Your task to perform on an android device: open device folders in google photos Image 0: 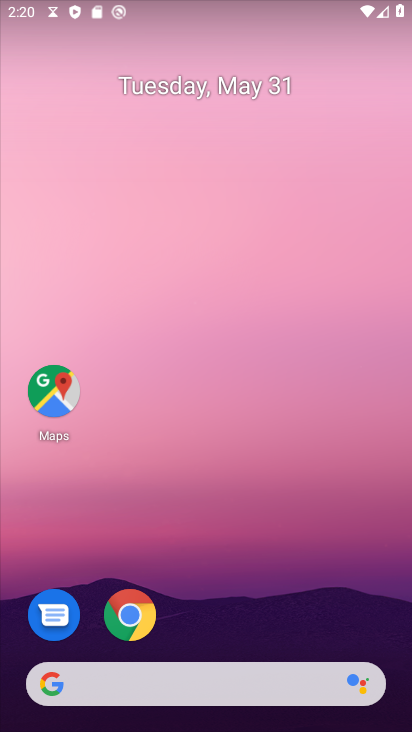
Step 0: drag from (249, 641) to (154, 118)
Your task to perform on an android device: open device folders in google photos Image 1: 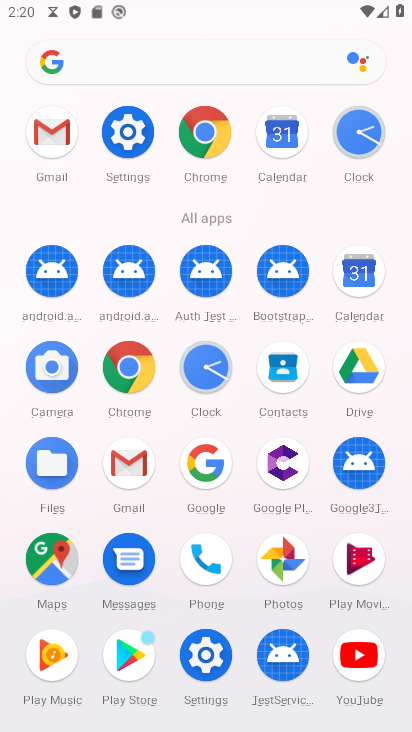
Step 1: click (288, 560)
Your task to perform on an android device: open device folders in google photos Image 2: 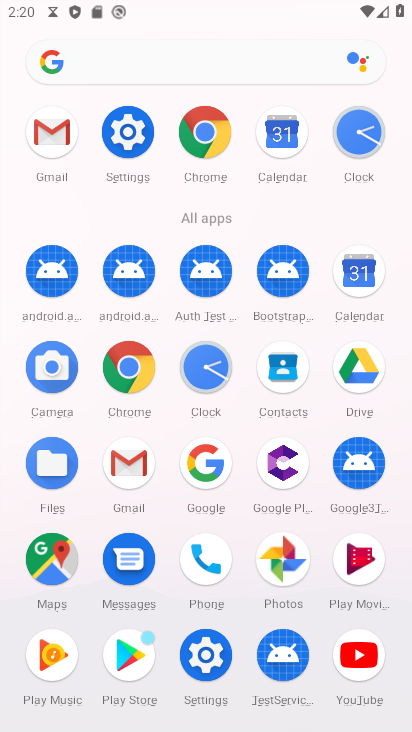
Step 2: click (288, 560)
Your task to perform on an android device: open device folders in google photos Image 3: 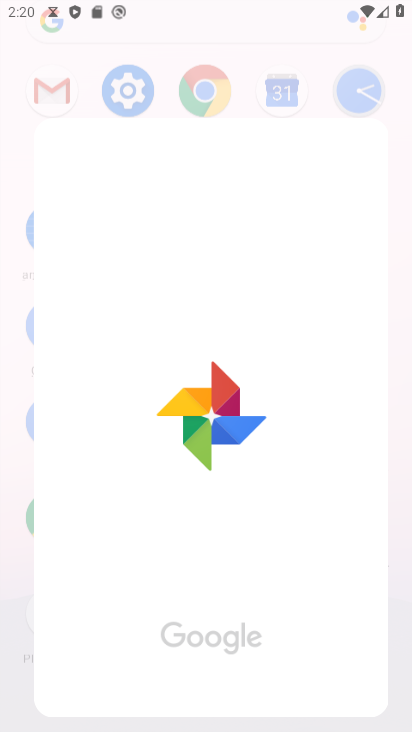
Step 3: click (288, 560)
Your task to perform on an android device: open device folders in google photos Image 4: 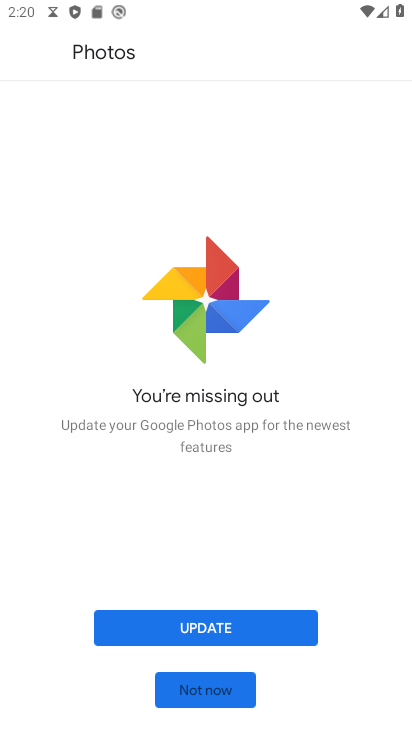
Step 4: click (214, 686)
Your task to perform on an android device: open device folders in google photos Image 5: 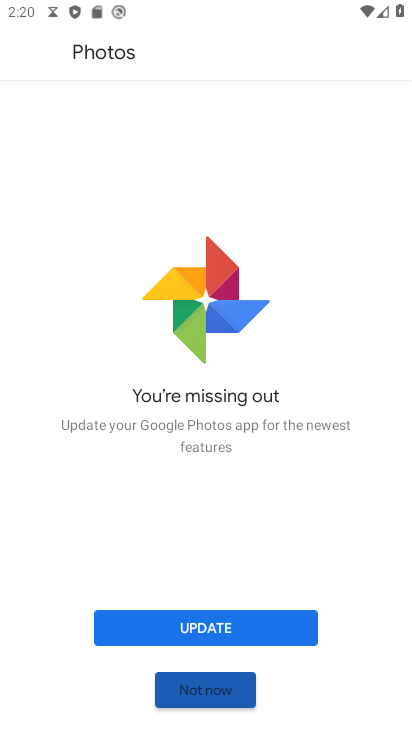
Step 5: click (215, 685)
Your task to perform on an android device: open device folders in google photos Image 6: 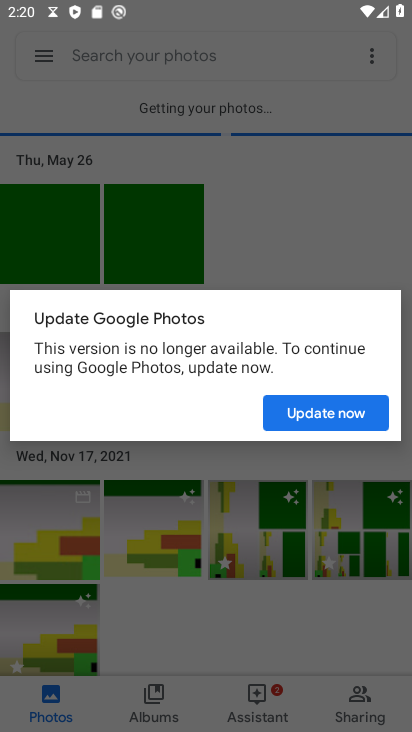
Step 6: click (273, 224)
Your task to perform on an android device: open device folders in google photos Image 7: 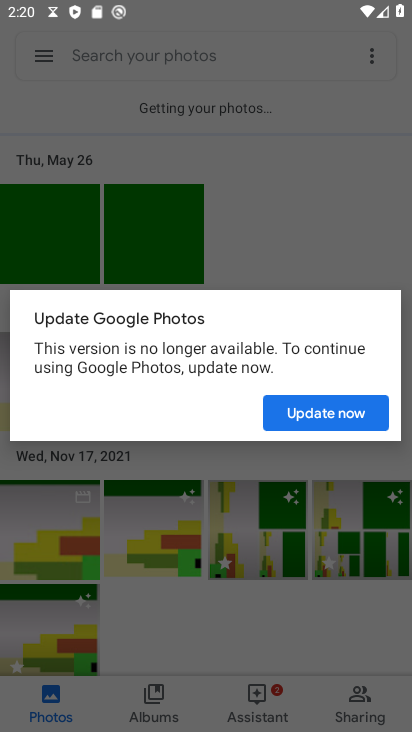
Step 7: click (274, 224)
Your task to perform on an android device: open device folders in google photos Image 8: 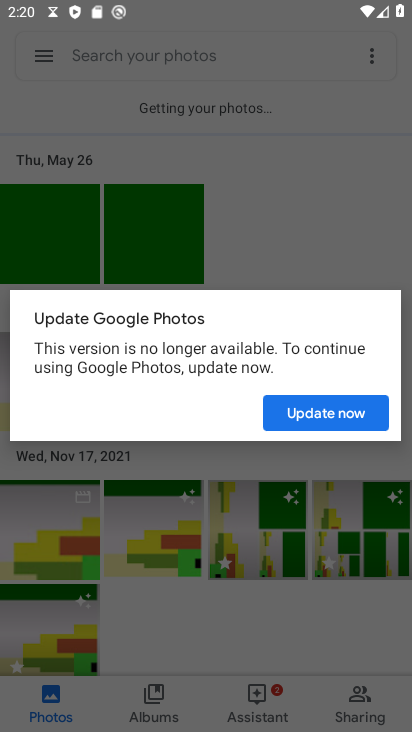
Step 8: click (274, 224)
Your task to perform on an android device: open device folders in google photos Image 9: 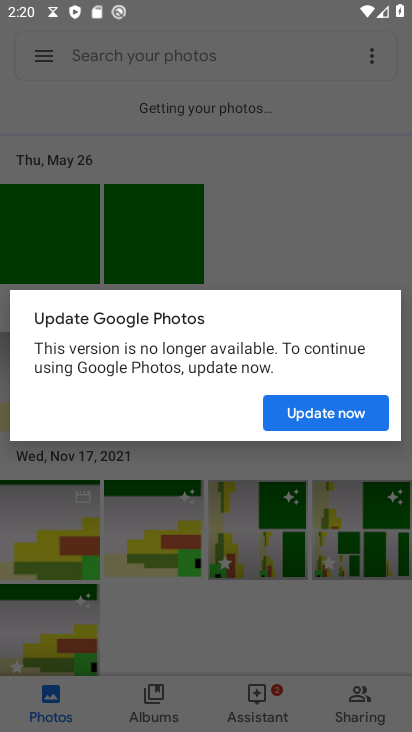
Step 9: click (274, 224)
Your task to perform on an android device: open device folders in google photos Image 10: 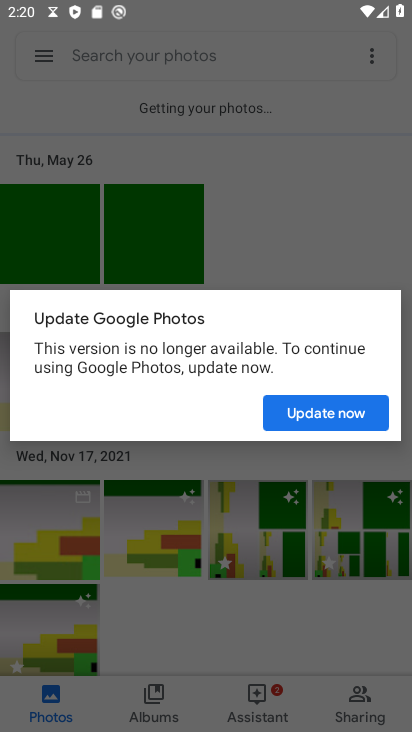
Step 10: click (274, 224)
Your task to perform on an android device: open device folders in google photos Image 11: 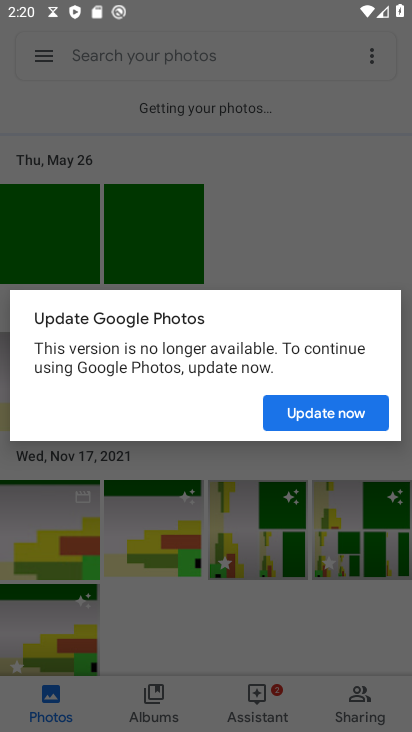
Step 11: click (274, 224)
Your task to perform on an android device: open device folders in google photos Image 12: 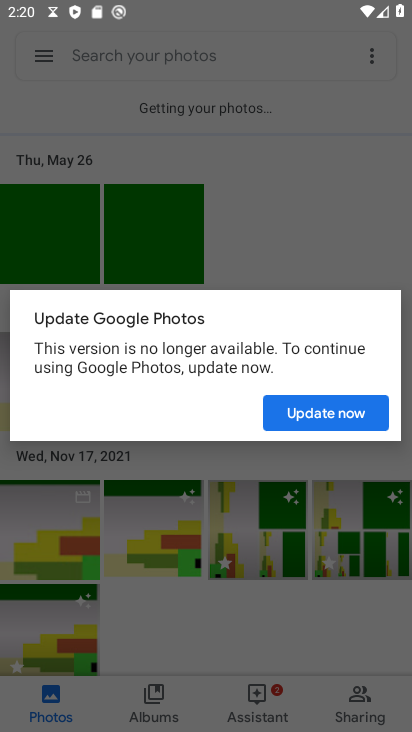
Step 12: click (274, 224)
Your task to perform on an android device: open device folders in google photos Image 13: 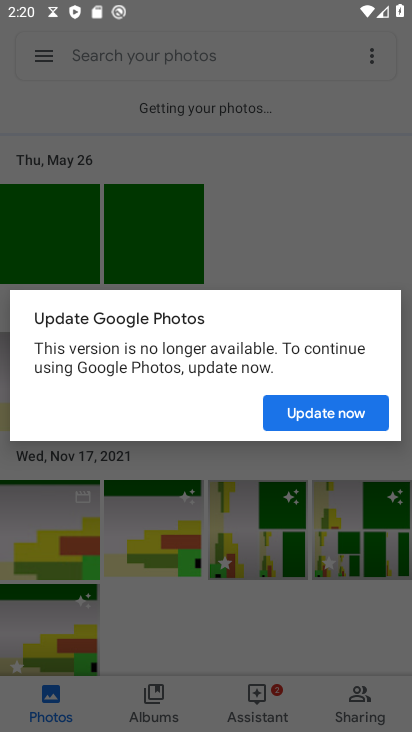
Step 13: click (275, 224)
Your task to perform on an android device: open device folders in google photos Image 14: 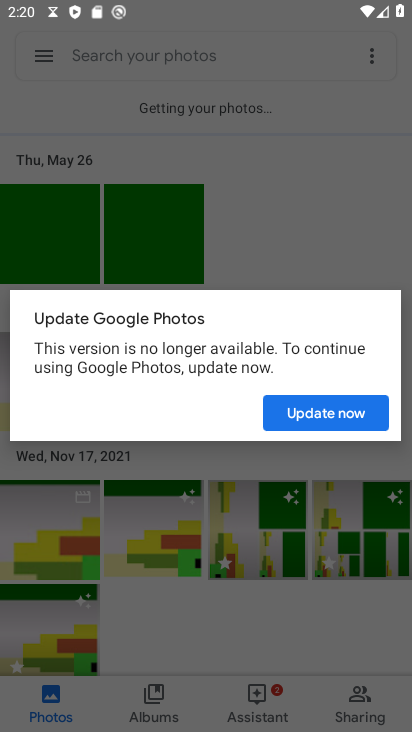
Step 14: click (276, 224)
Your task to perform on an android device: open device folders in google photos Image 15: 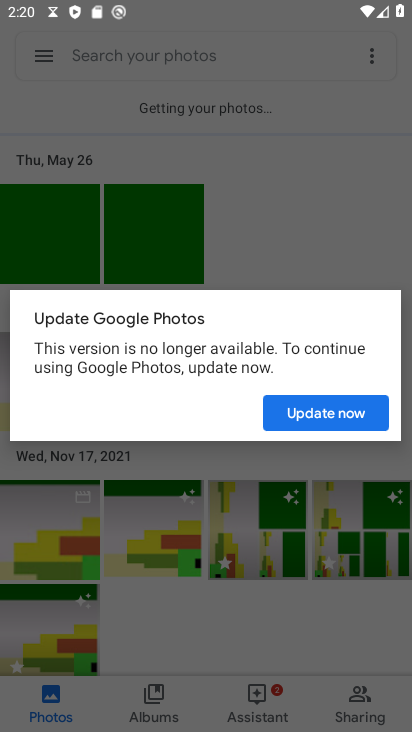
Step 15: click (309, 429)
Your task to perform on an android device: open device folders in google photos Image 16: 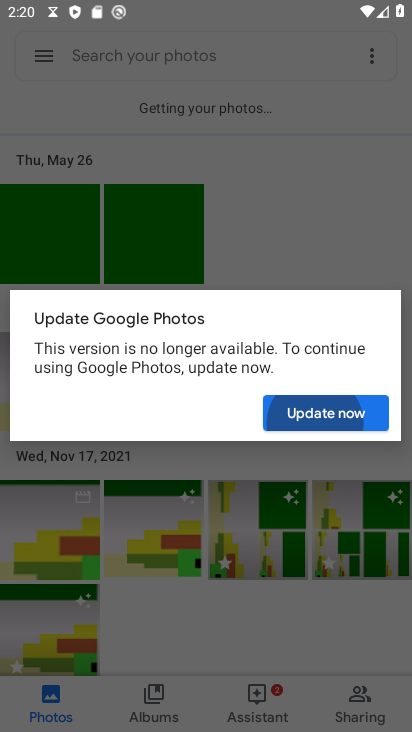
Step 16: click (309, 429)
Your task to perform on an android device: open device folders in google photos Image 17: 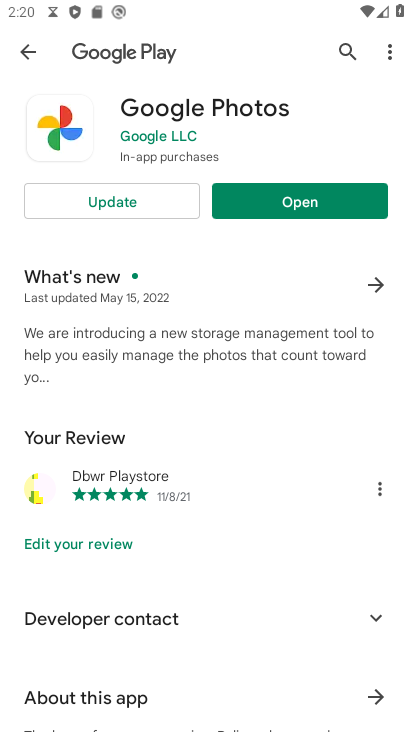
Step 17: click (152, 205)
Your task to perform on an android device: open device folders in google photos Image 18: 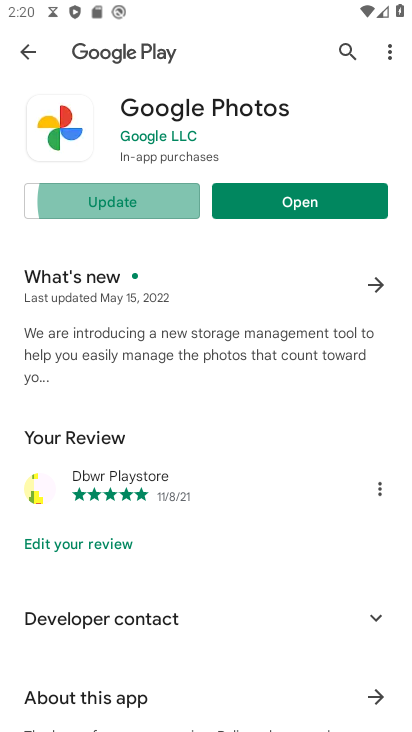
Step 18: click (152, 205)
Your task to perform on an android device: open device folders in google photos Image 19: 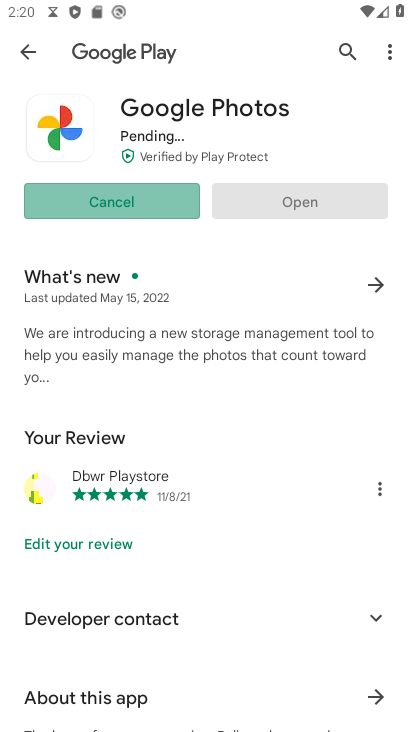
Step 19: click (152, 205)
Your task to perform on an android device: open device folders in google photos Image 20: 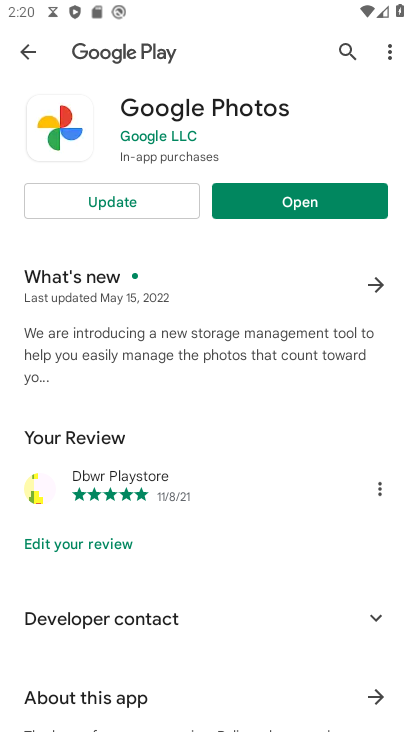
Step 20: click (312, 204)
Your task to perform on an android device: open device folders in google photos Image 21: 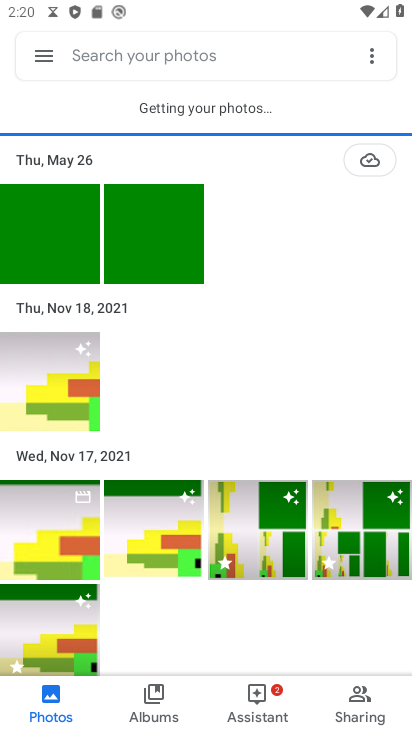
Step 21: click (41, 48)
Your task to perform on an android device: open device folders in google photos Image 22: 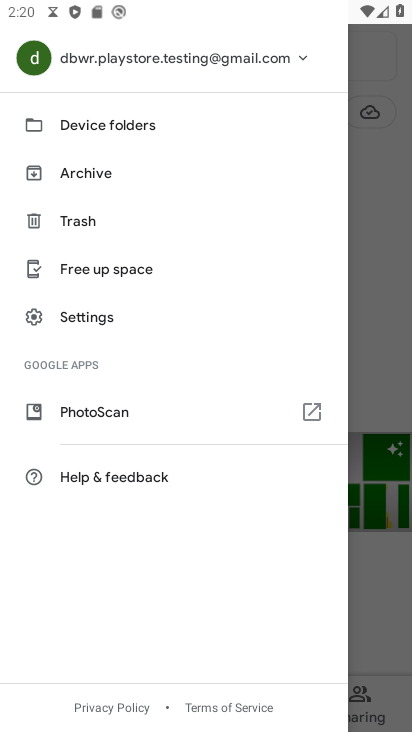
Step 22: click (91, 115)
Your task to perform on an android device: open device folders in google photos Image 23: 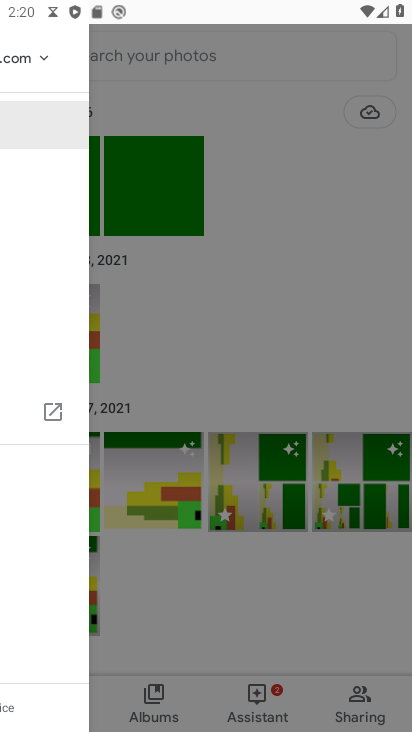
Step 23: click (91, 115)
Your task to perform on an android device: open device folders in google photos Image 24: 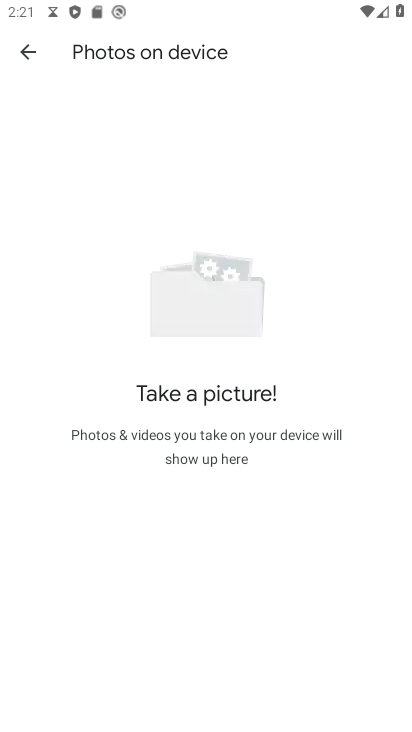
Step 24: task complete